Your task to perform on an android device: toggle notifications settings in the gmail app Image 0: 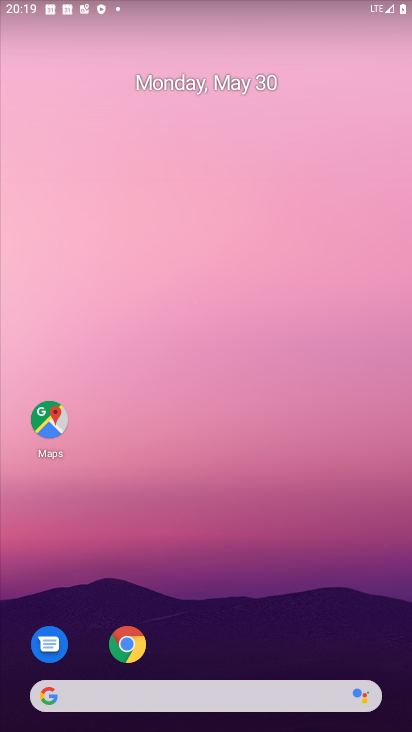
Step 0: drag from (284, 629) to (82, 10)
Your task to perform on an android device: toggle notifications settings in the gmail app Image 1: 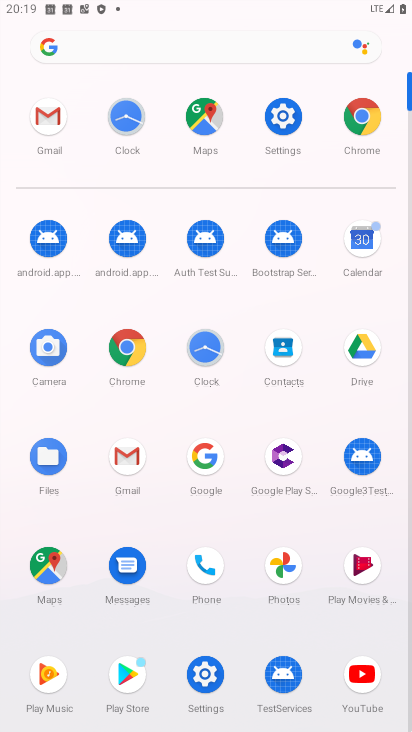
Step 1: click (48, 117)
Your task to perform on an android device: toggle notifications settings in the gmail app Image 2: 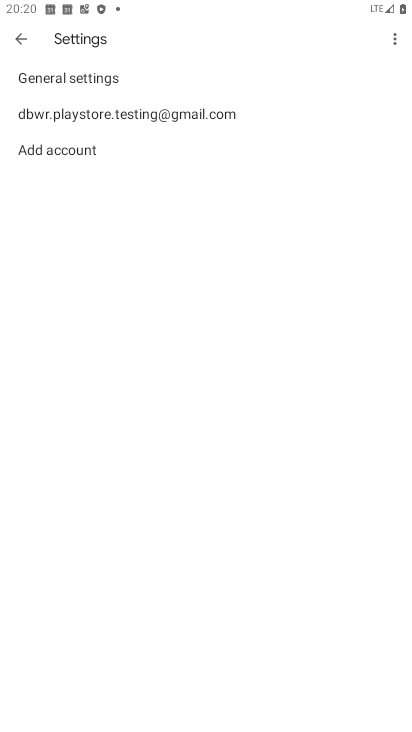
Step 2: click (48, 117)
Your task to perform on an android device: toggle notifications settings in the gmail app Image 3: 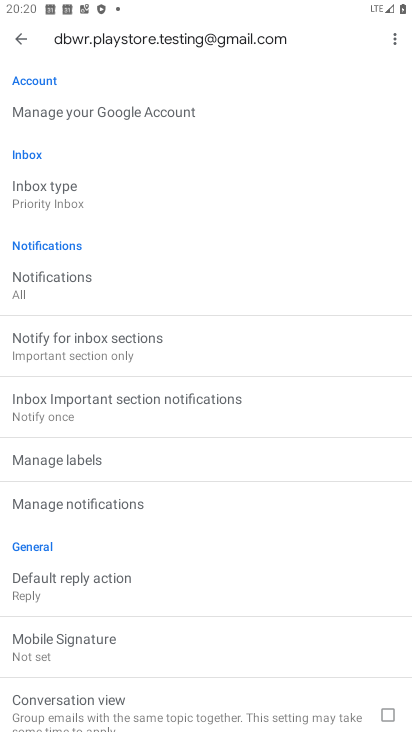
Step 3: click (122, 508)
Your task to perform on an android device: toggle notifications settings in the gmail app Image 4: 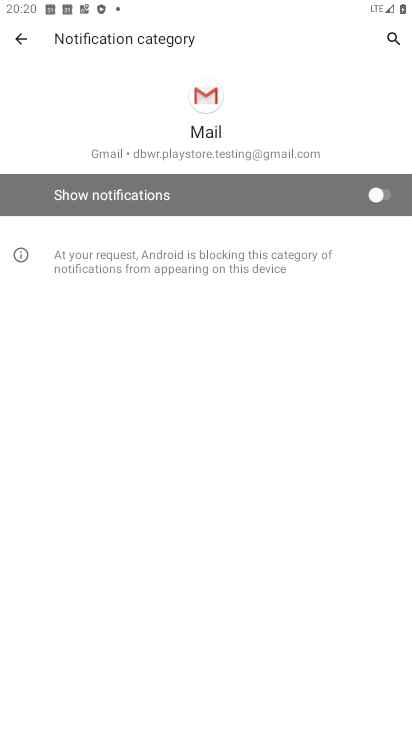
Step 4: click (374, 199)
Your task to perform on an android device: toggle notifications settings in the gmail app Image 5: 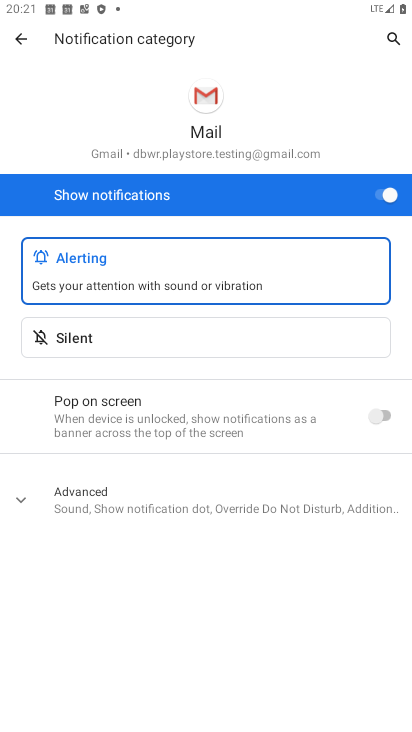
Step 5: task complete